Your task to perform on an android device: move a message to another label in the gmail app Image 0: 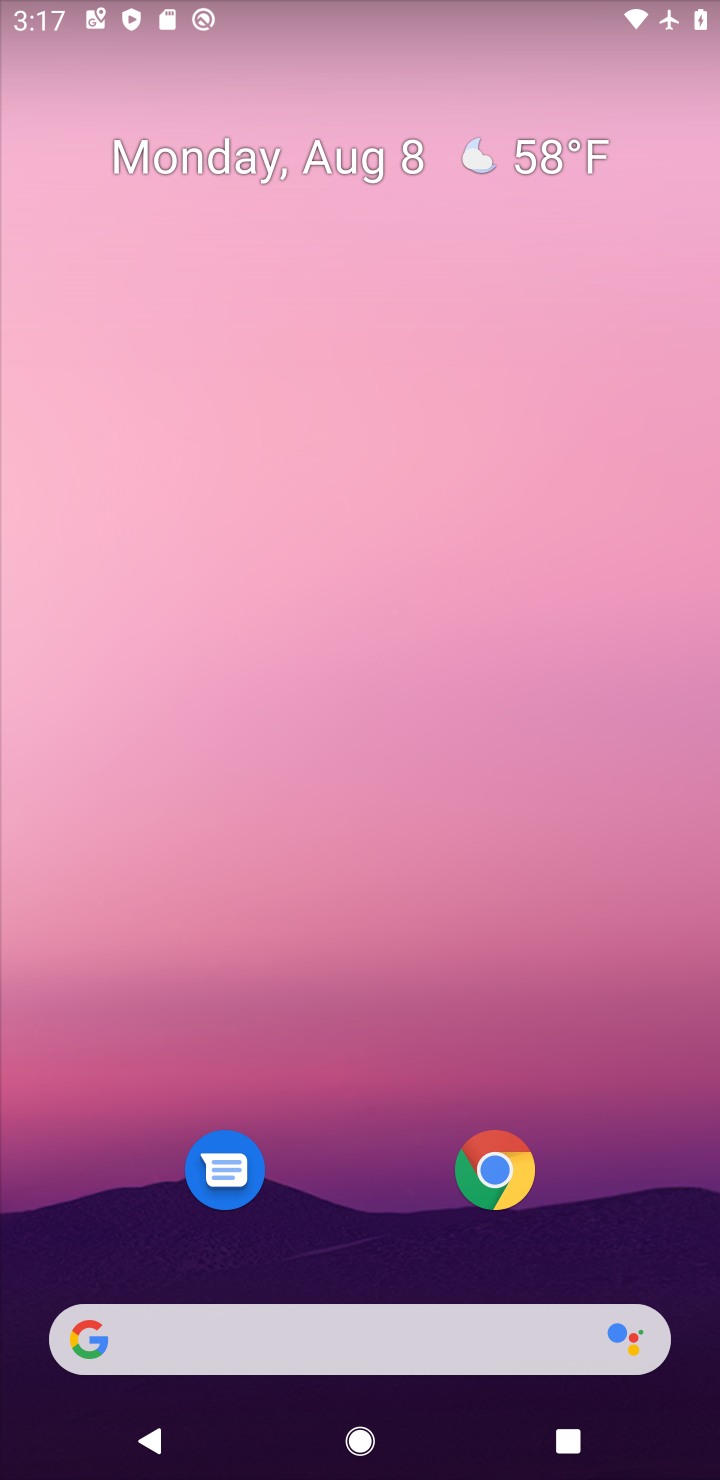
Step 0: drag from (393, 1137) to (387, 544)
Your task to perform on an android device: move a message to another label in the gmail app Image 1: 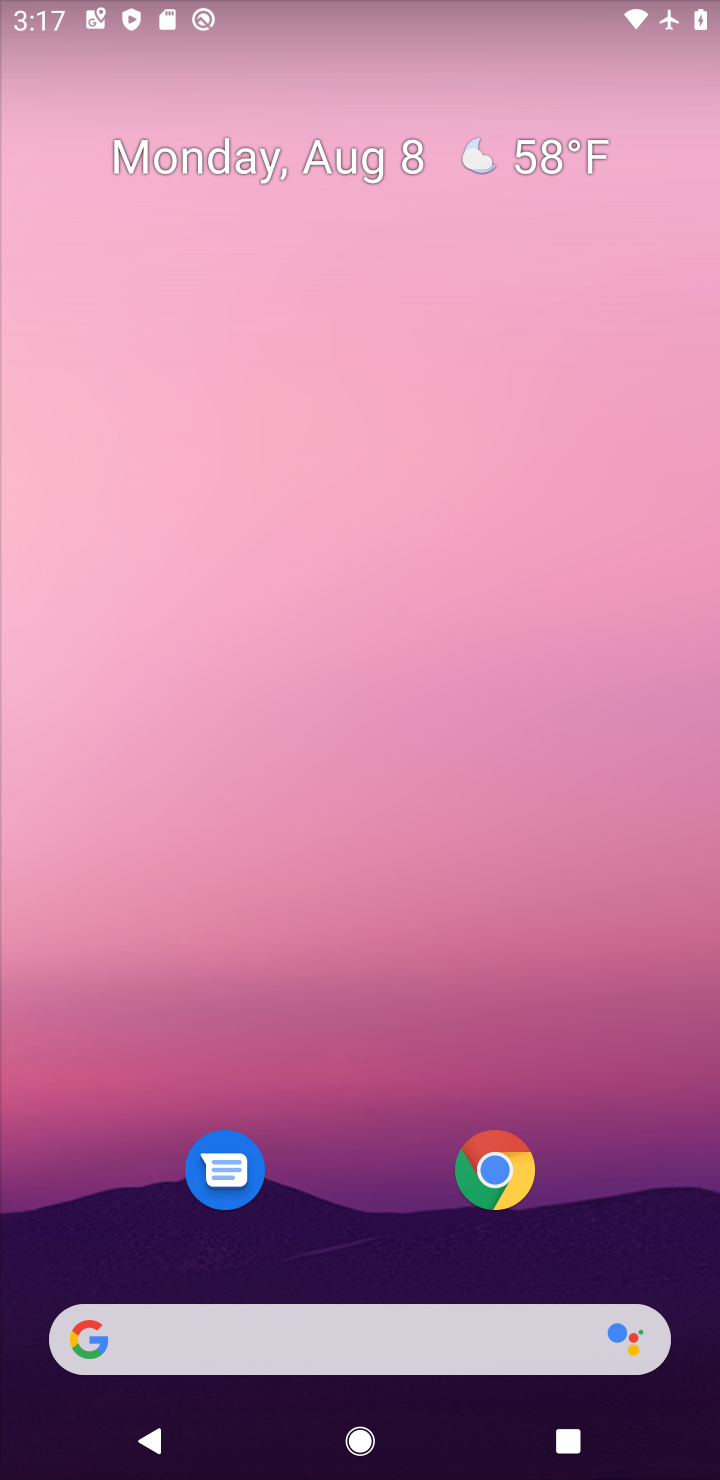
Step 1: drag from (342, 1054) to (342, 305)
Your task to perform on an android device: move a message to another label in the gmail app Image 2: 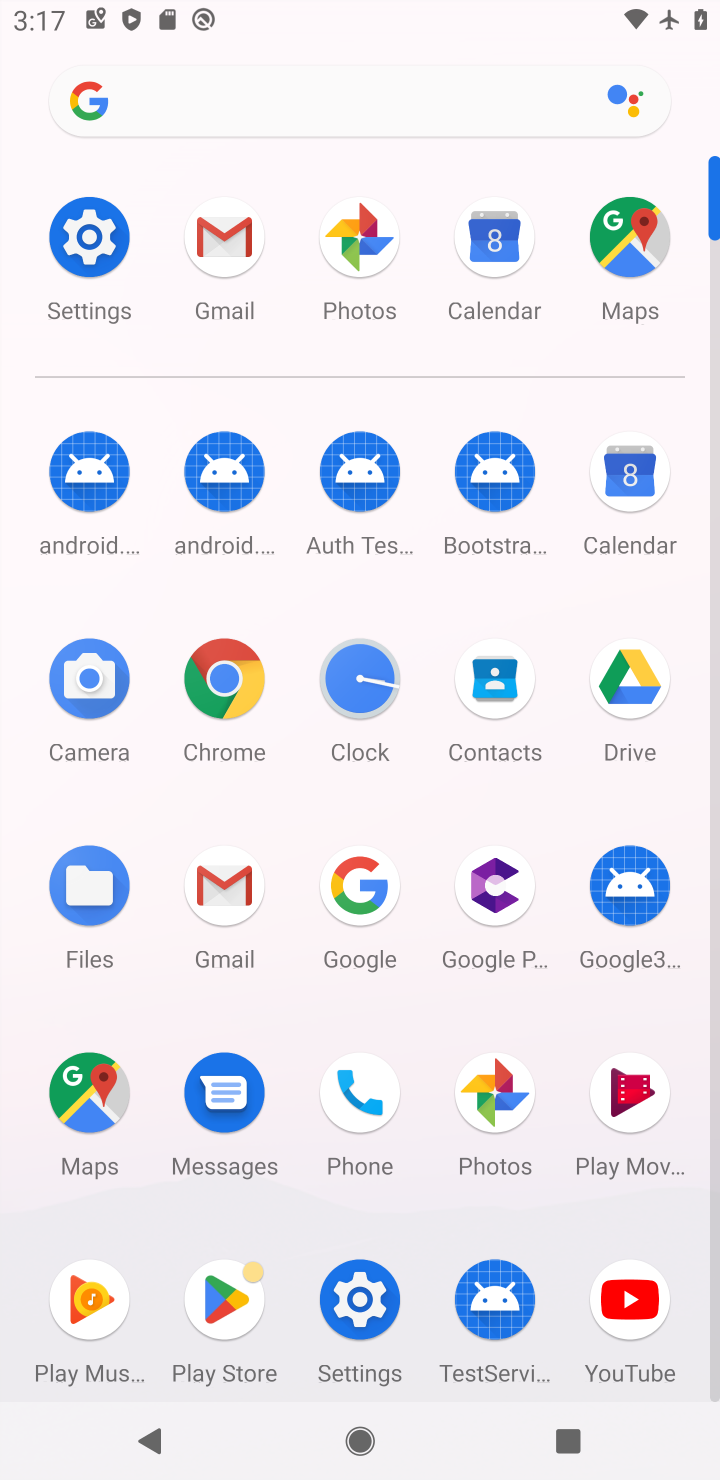
Step 2: click (255, 259)
Your task to perform on an android device: move a message to another label in the gmail app Image 3: 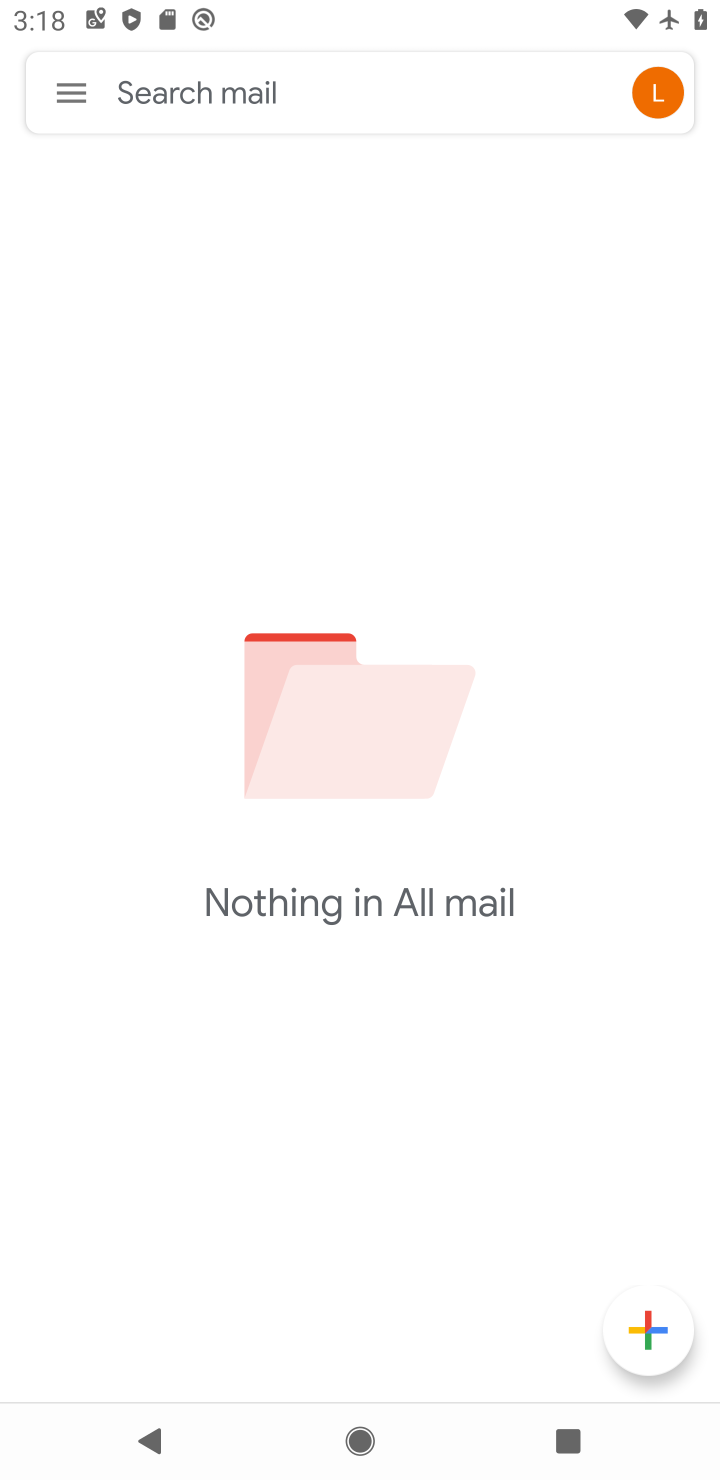
Step 3: click (71, 90)
Your task to perform on an android device: move a message to another label in the gmail app Image 4: 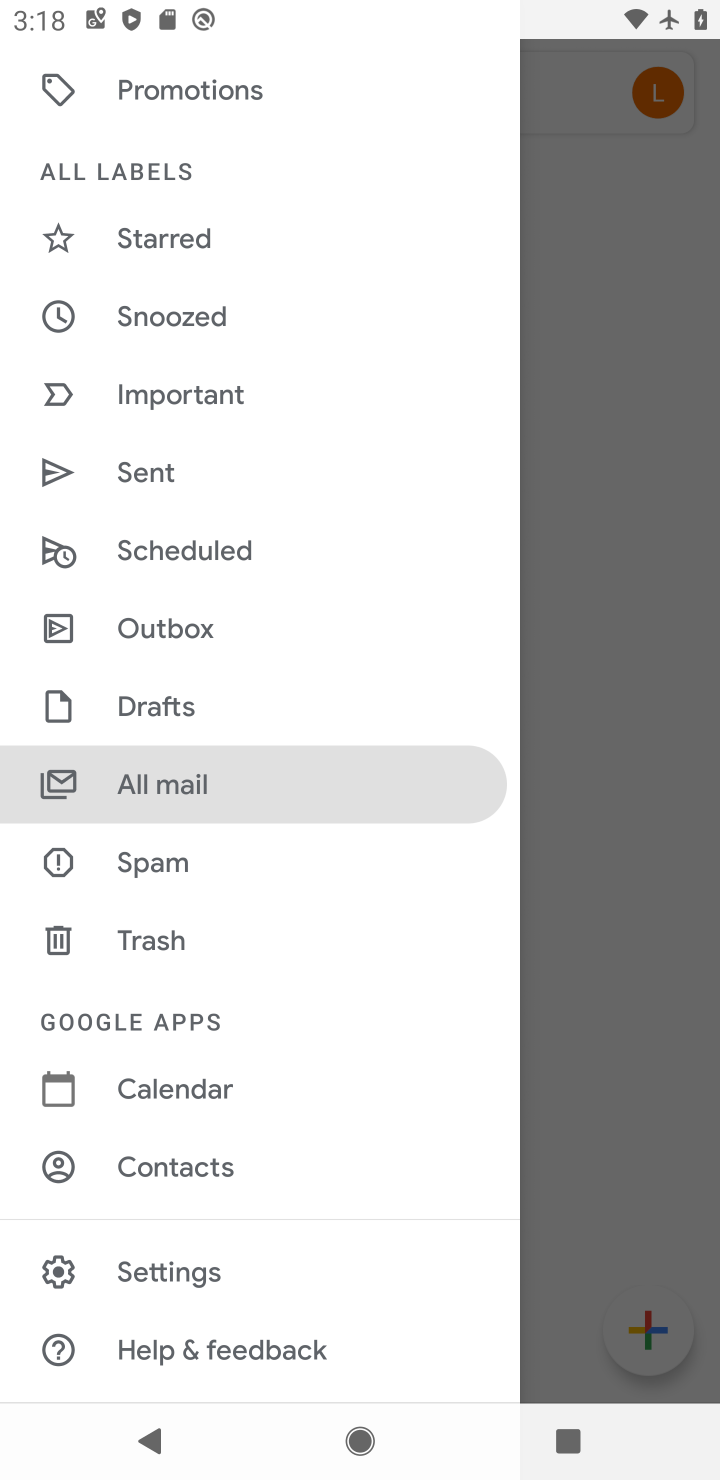
Step 4: click (215, 761)
Your task to perform on an android device: move a message to another label in the gmail app Image 5: 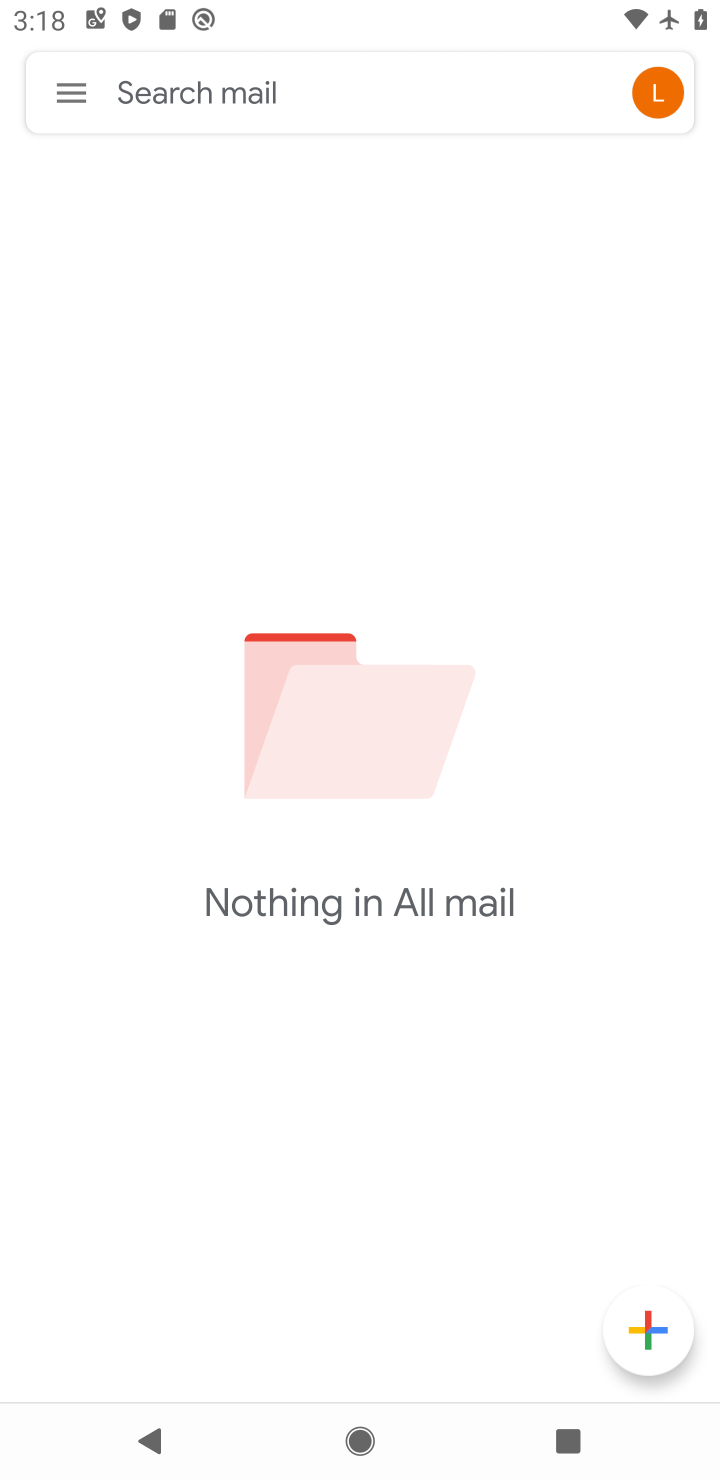
Step 5: task complete